Your task to perform on an android device: turn on the 12-hour format for clock Image 0: 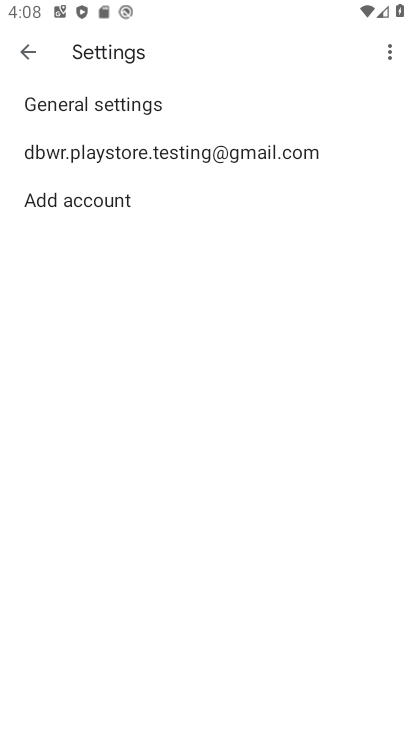
Step 0: drag from (257, 695) to (220, 408)
Your task to perform on an android device: turn on the 12-hour format for clock Image 1: 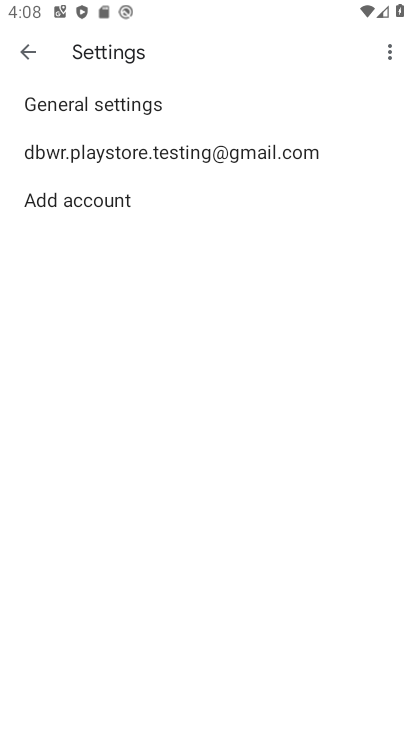
Step 1: click (25, 51)
Your task to perform on an android device: turn on the 12-hour format for clock Image 2: 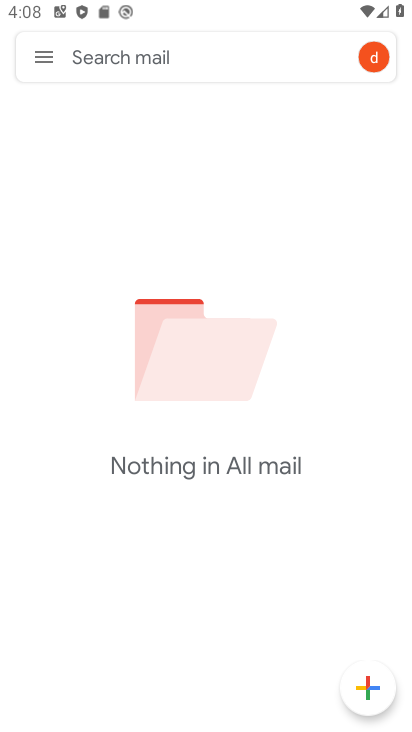
Step 2: click (50, 73)
Your task to perform on an android device: turn on the 12-hour format for clock Image 3: 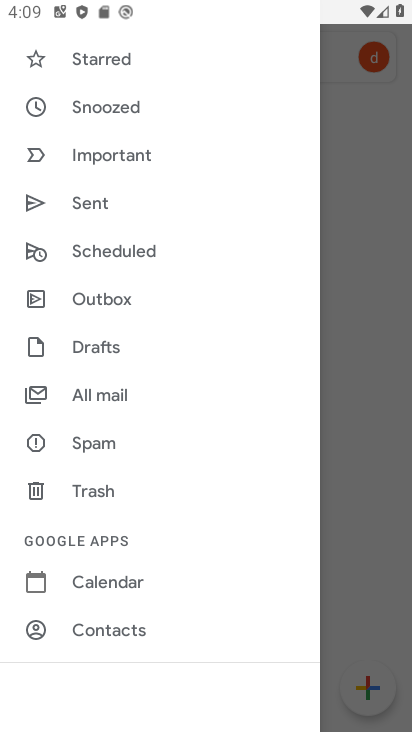
Step 3: click (351, 363)
Your task to perform on an android device: turn on the 12-hour format for clock Image 4: 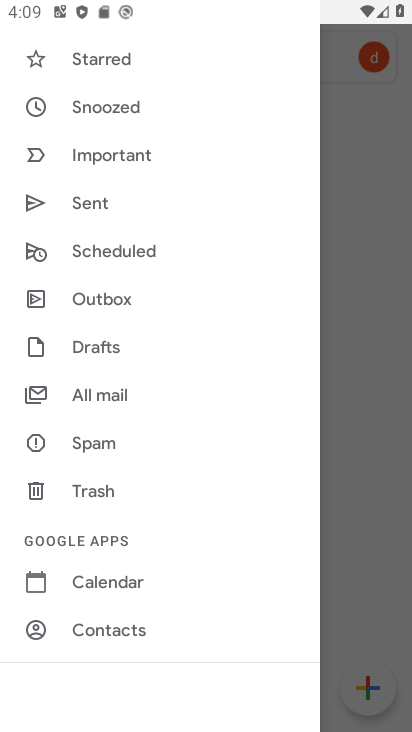
Step 4: click (350, 364)
Your task to perform on an android device: turn on the 12-hour format for clock Image 5: 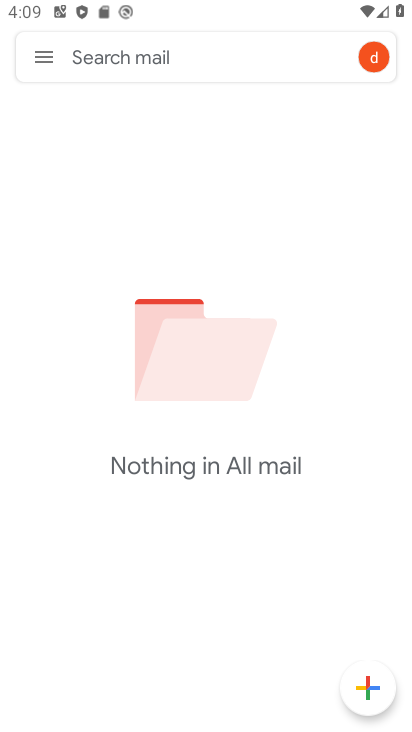
Step 5: press home button
Your task to perform on an android device: turn on the 12-hour format for clock Image 6: 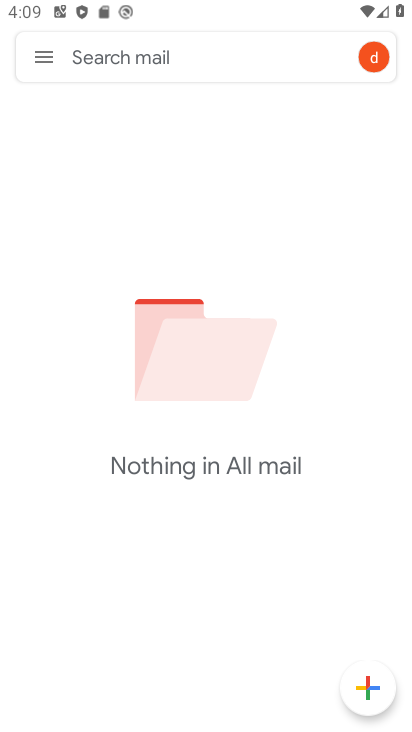
Step 6: press home button
Your task to perform on an android device: turn on the 12-hour format for clock Image 7: 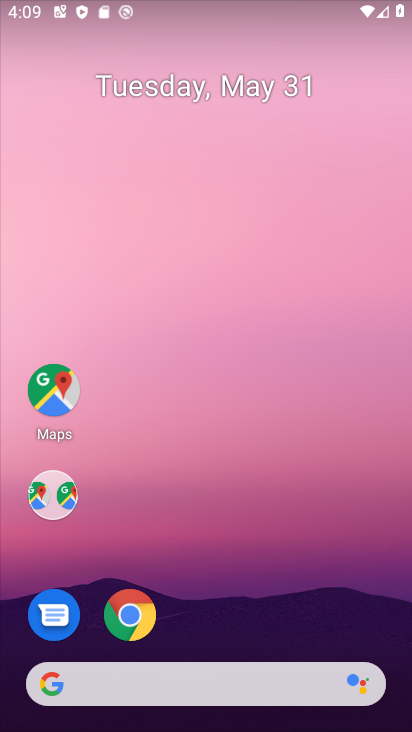
Step 7: drag from (271, 323) to (265, 131)
Your task to perform on an android device: turn on the 12-hour format for clock Image 8: 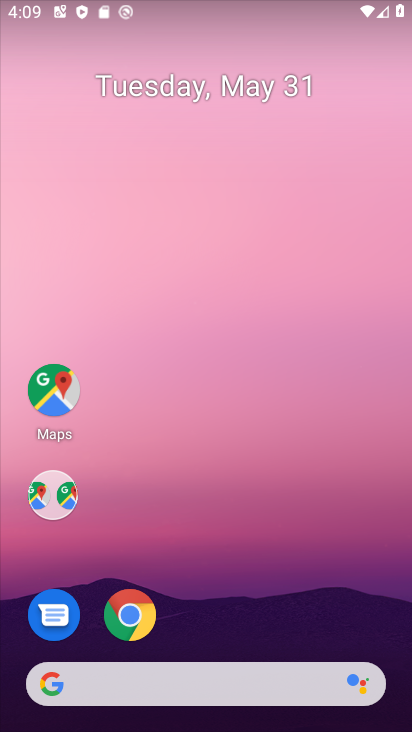
Step 8: drag from (211, 683) to (233, 136)
Your task to perform on an android device: turn on the 12-hour format for clock Image 9: 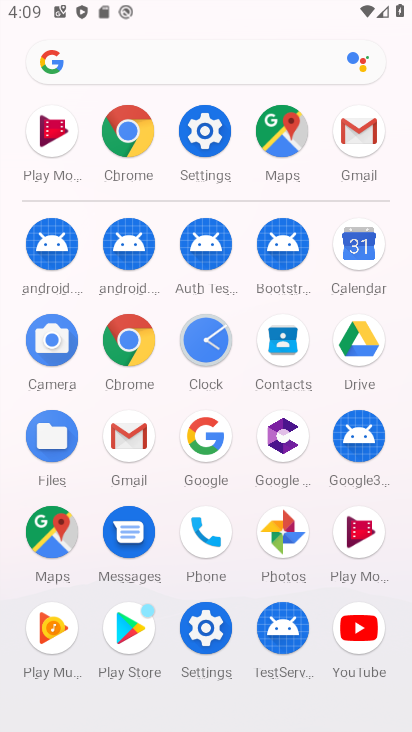
Step 9: click (200, 324)
Your task to perform on an android device: turn on the 12-hour format for clock Image 10: 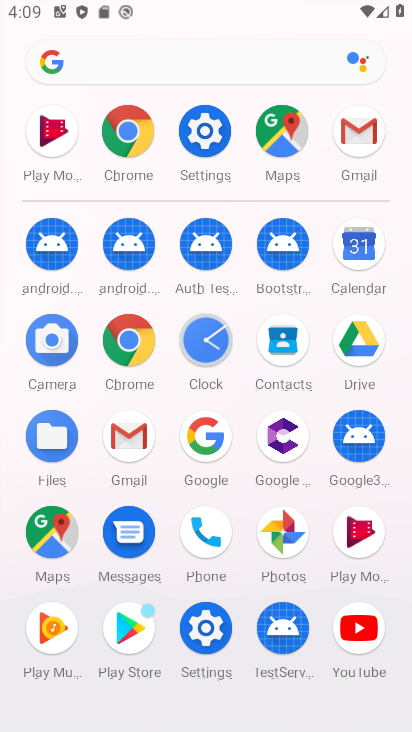
Step 10: click (201, 322)
Your task to perform on an android device: turn on the 12-hour format for clock Image 11: 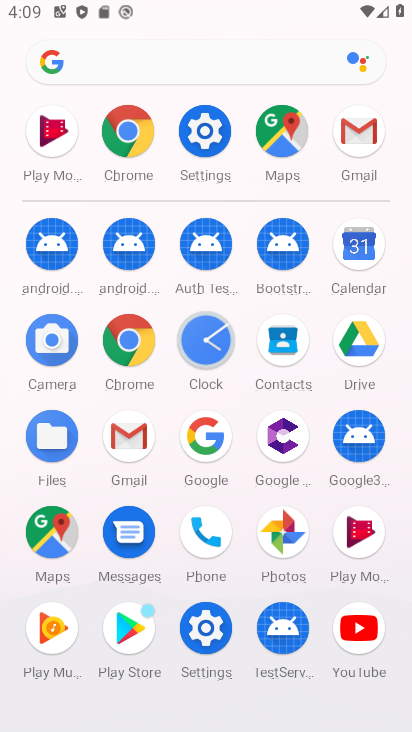
Step 11: click (201, 322)
Your task to perform on an android device: turn on the 12-hour format for clock Image 12: 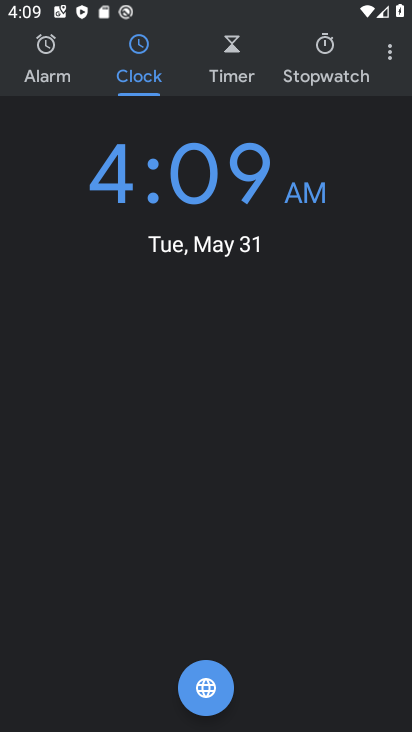
Step 12: click (387, 56)
Your task to perform on an android device: turn on the 12-hour format for clock Image 13: 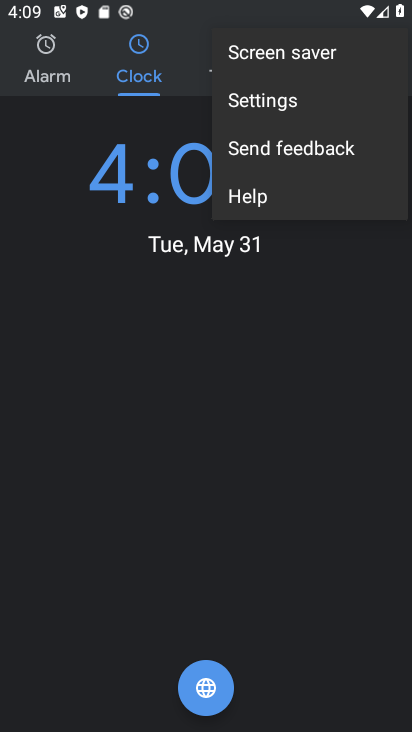
Step 13: click (288, 94)
Your task to perform on an android device: turn on the 12-hour format for clock Image 14: 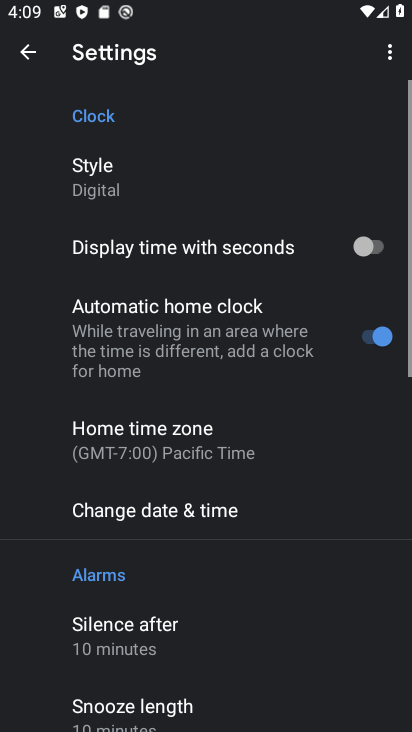
Step 14: drag from (199, 367) to (211, 84)
Your task to perform on an android device: turn on the 12-hour format for clock Image 15: 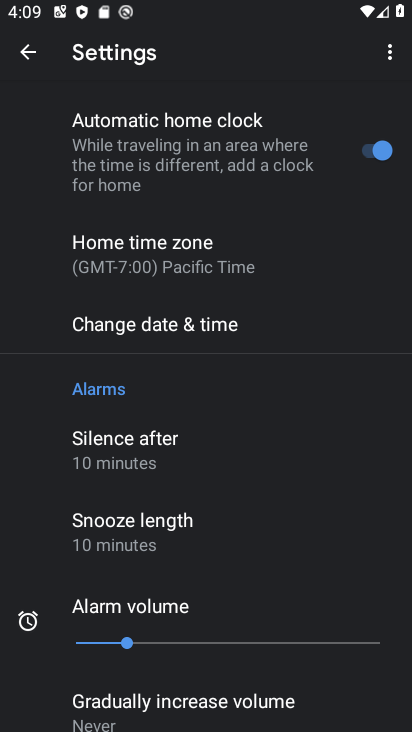
Step 15: drag from (188, 537) to (161, 178)
Your task to perform on an android device: turn on the 12-hour format for clock Image 16: 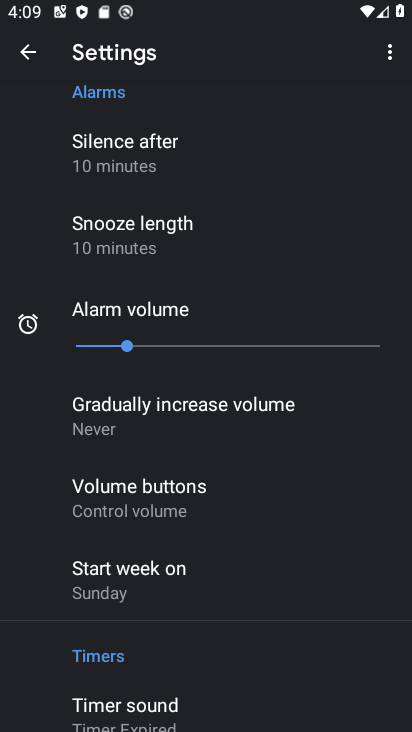
Step 16: drag from (188, 519) to (163, 218)
Your task to perform on an android device: turn on the 12-hour format for clock Image 17: 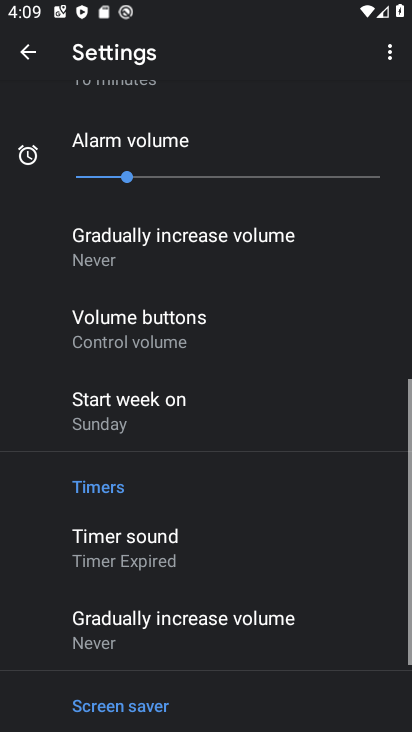
Step 17: drag from (174, 580) to (245, 143)
Your task to perform on an android device: turn on the 12-hour format for clock Image 18: 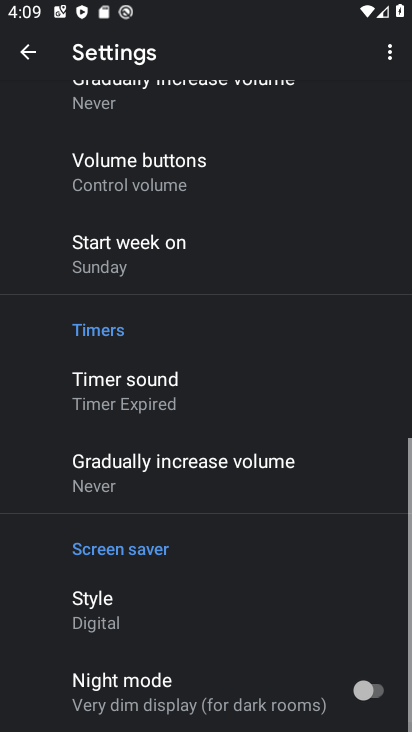
Step 18: drag from (190, 517) to (173, 146)
Your task to perform on an android device: turn on the 12-hour format for clock Image 19: 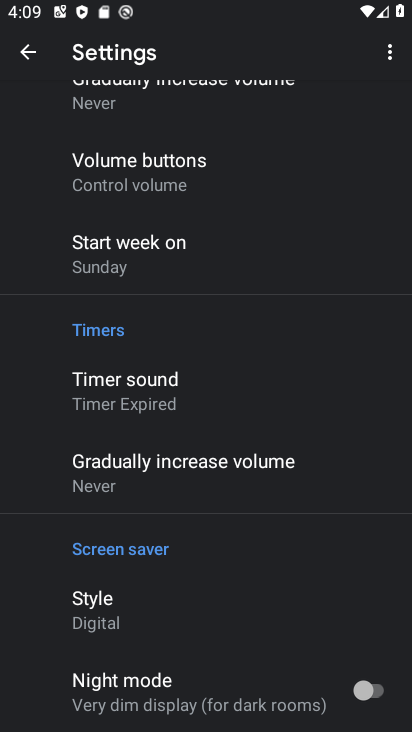
Step 19: drag from (133, 445) to (82, 259)
Your task to perform on an android device: turn on the 12-hour format for clock Image 20: 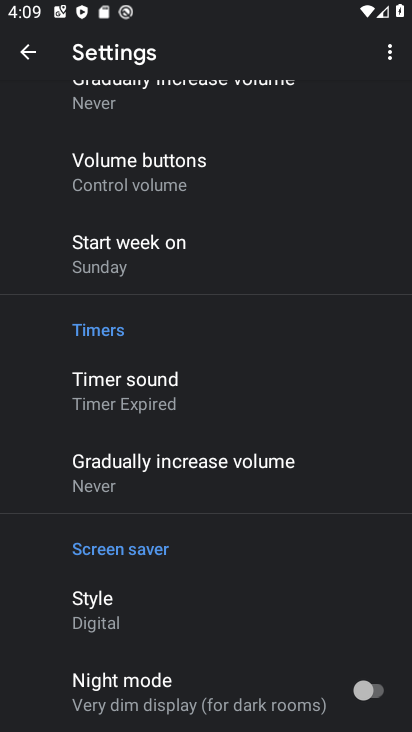
Step 20: drag from (115, 457) to (82, 76)
Your task to perform on an android device: turn on the 12-hour format for clock Image 21: 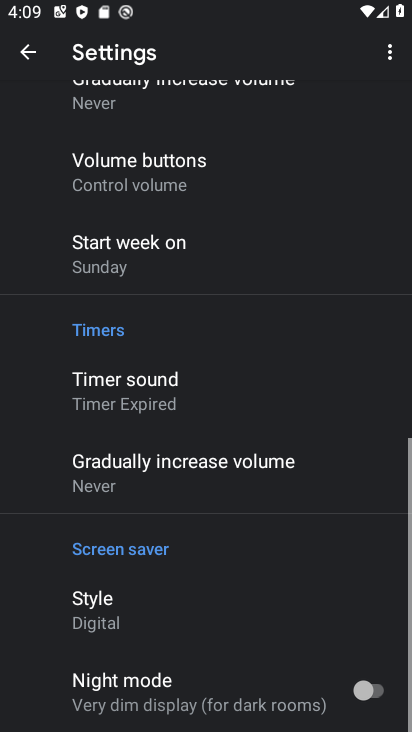
Step 21: drag from (135, 520) to (178, 76)
Your task to perform on an android device: turn on the 12-hour format for clock Image 22: 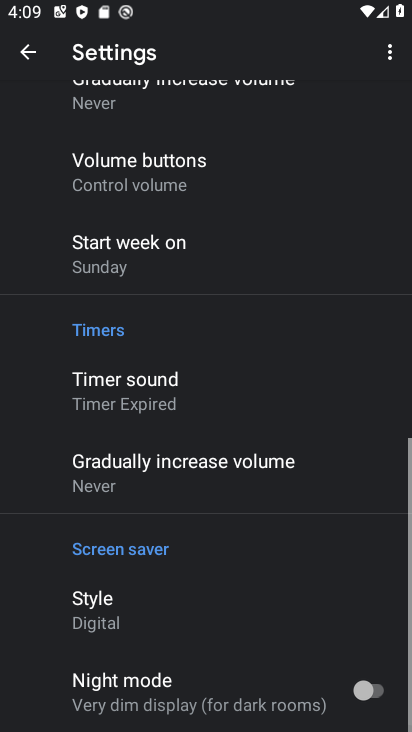
Step 22: drag from (202, 413) to (198, 55)
Your task to perform on an android device: turn on the 12-hour format for clock Image 23: 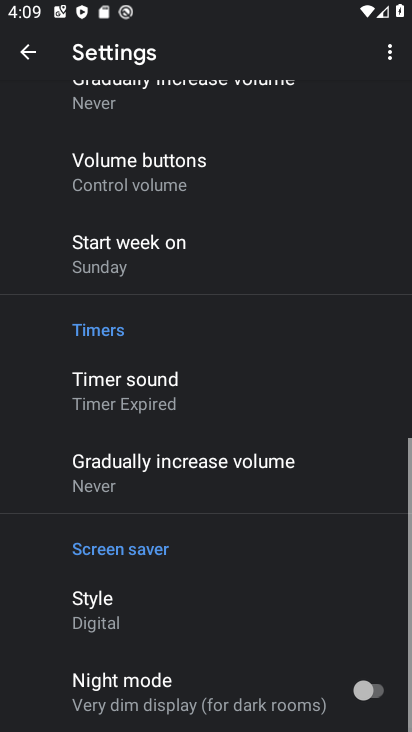
Step 23: drag from (177, 481) to (185, 244)
Your task to perform on an android device: turn on the 12-hour format for clock Image 24: 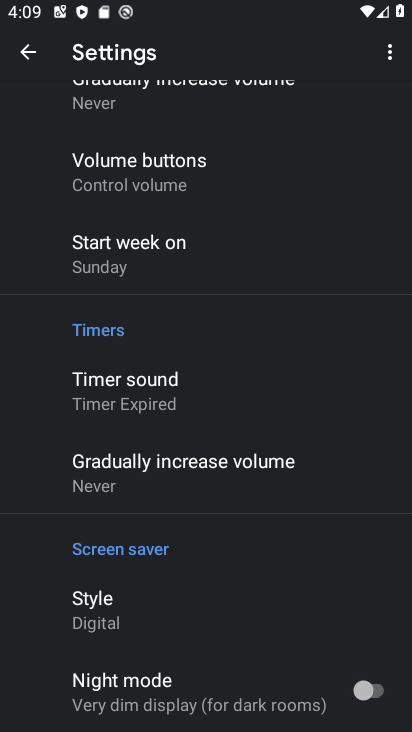
Step 24: drag from (125, 559) to (193, 146)
Your task to perform on an android device: turn on the 12-hour format for clock Image 25: 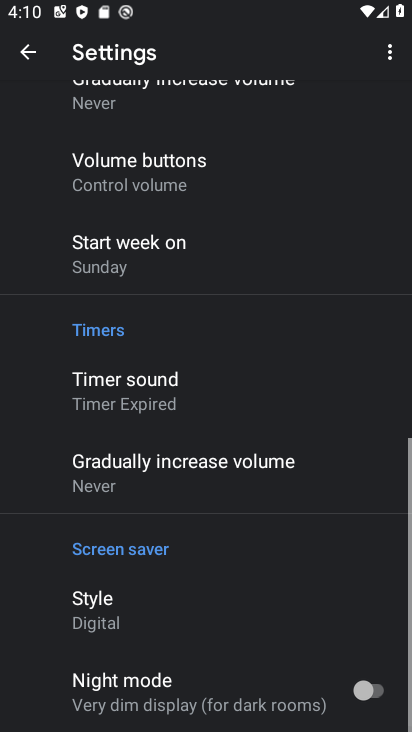
Step 25: drag from (156, 601) to (128, 90)
Your task to perform on an android device: turn on the 12-hour format for clock Image 26: 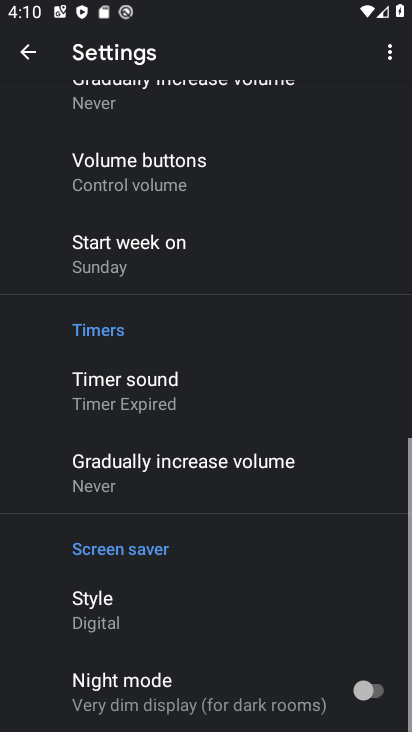
Step 26: drag from (66, 242) to (159, 519)
Your task to perform on an android device: turn on the 12-hour format for clock Image 27: 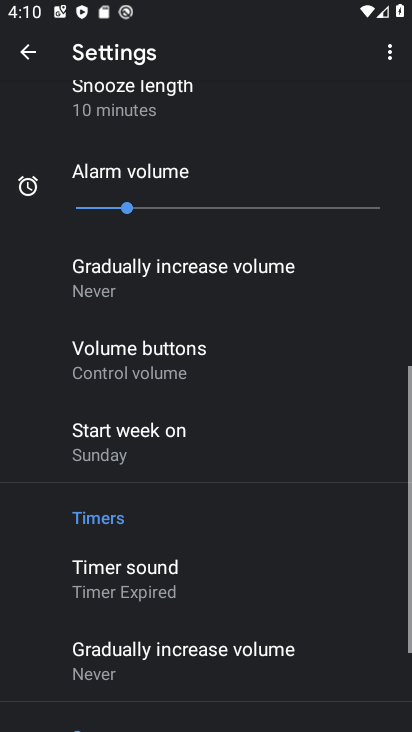
Step 27: drag from (159, 209) to (181, 368)
Your task to perform on an android device: turn on the 12-hour format for clock Image 28: 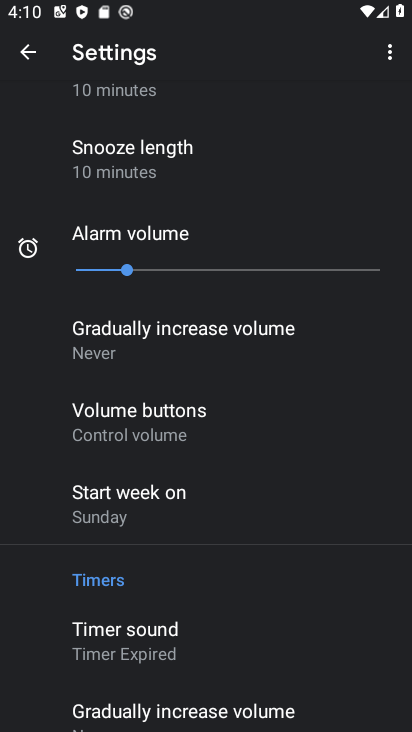
Step 28: drag from (195, 266) to (195, 588)
Your task to perform on an android device: turn on the 12-hour format for clock Image 29: 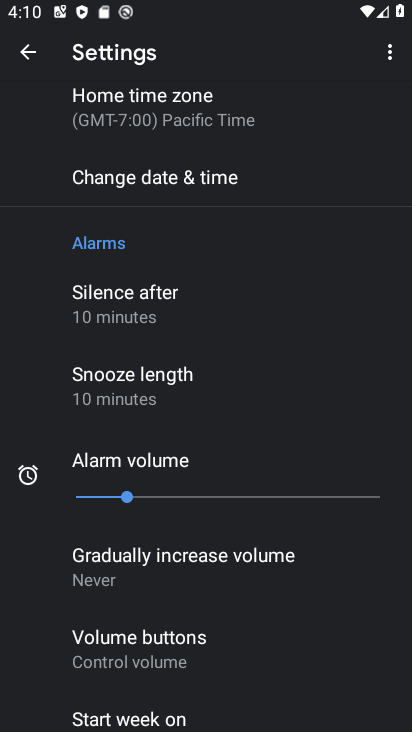
Step 29: click (150, 190)
Your task to perform on an android device: turn on the 12-hour format for clock Image 30: 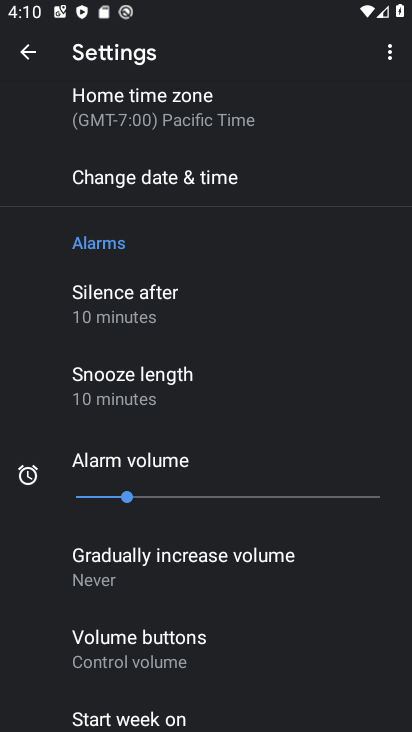
Step 30: click (150, 190)
Your task to perform on an android device: turn on the 12-hour format for clock Image 31: 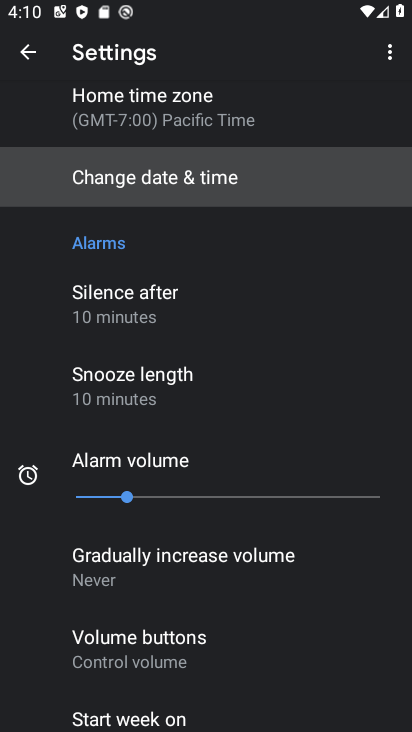
Step 31: click (150, 189)
Your task to perform on an android device: turn on the 12-hour format for clock Image 32: 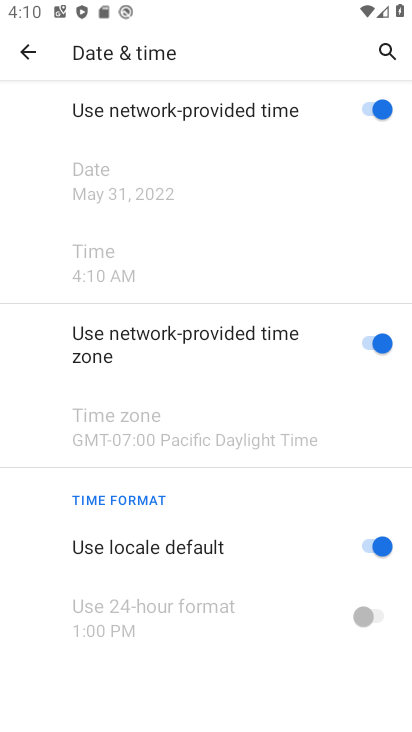
Step 32: task complete